Your task to perform on an android device: turn on improve location accuracy Image 0: 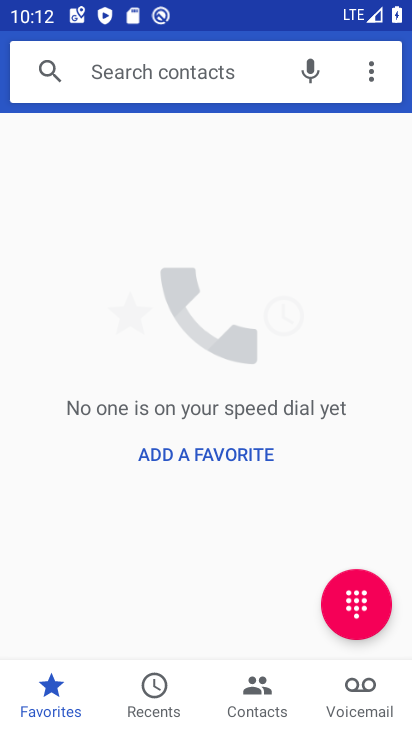
Step 0: press home button
Your task to perform on an android device: turn on improve location accuracy Image 1: 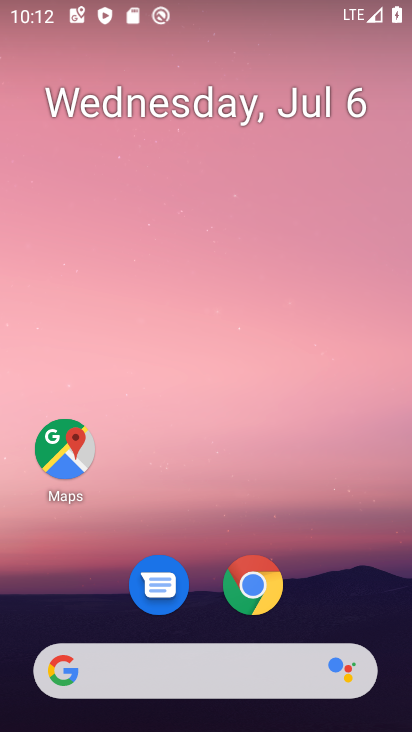
Step 1: drag from (202, 460) to (249, 1)
Your task to perform on an android device: turn on improve location accuracy Image 2: 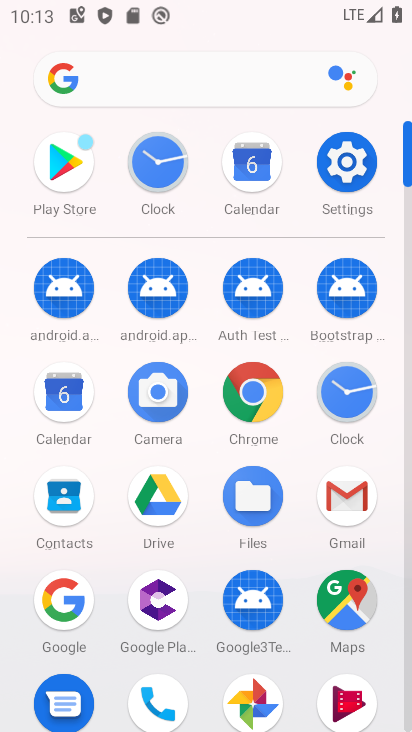
Step 2: click (356, 155)
Your task to perform on an android device: turn on improve location accuracy Image 3: 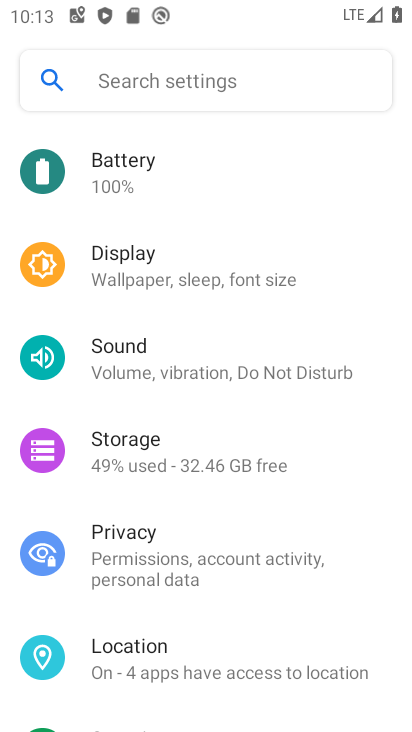
Step 3: click (210, 658)
Your task to perform on an android device: turn on improve location accuracy Image 4: 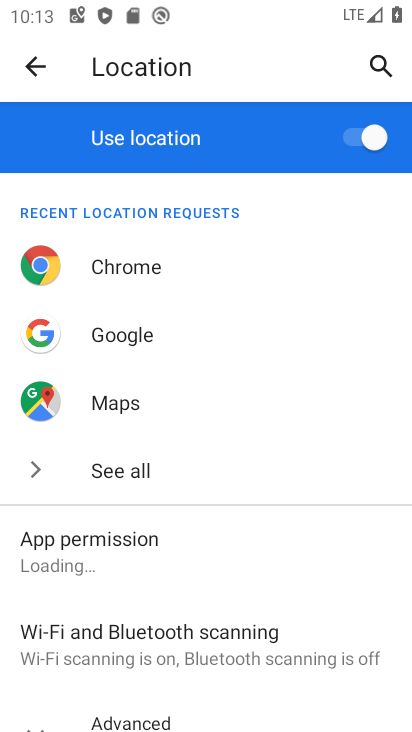
Step 4: drag from (263, 481) to (282, 152)
Your task to perform on an android device: turn on improve location accuracy Image 5: 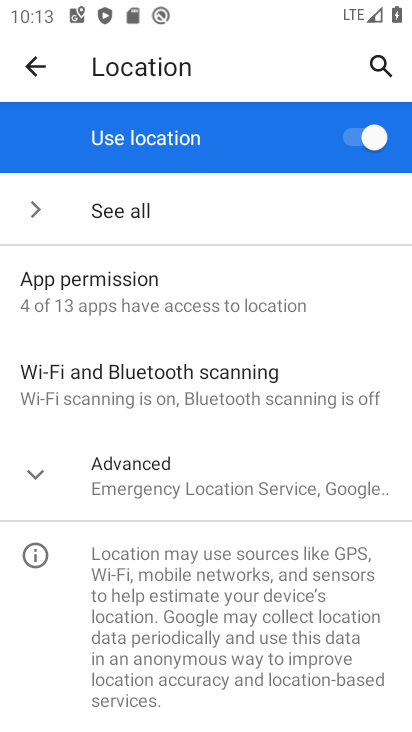
Step 5: click (31, 476)
Your task to perform on an android device: turn on improve location accuracy Image 6: 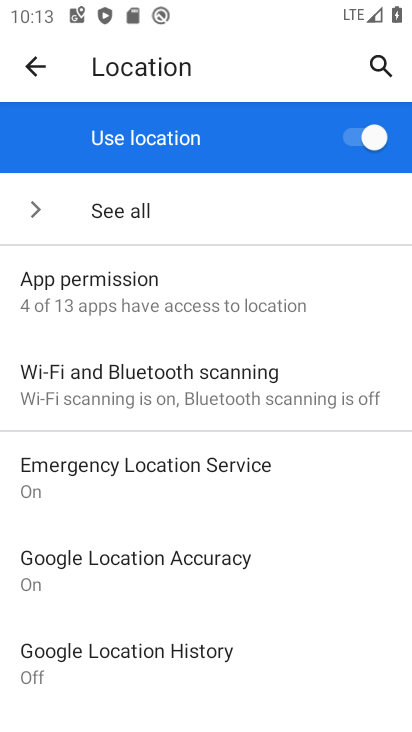
Step 6: click (231, 567)
Your task to perform on an android device: turn on improve location accuracy Image 7: 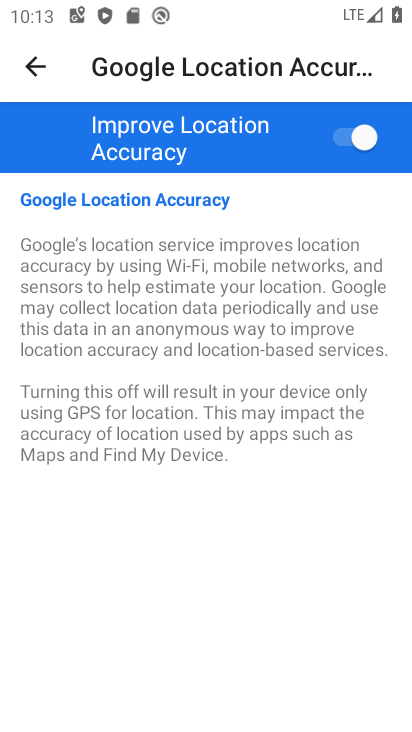
Step 7: task complete